Your task to perform on an android device: Open internet settings Image 0: 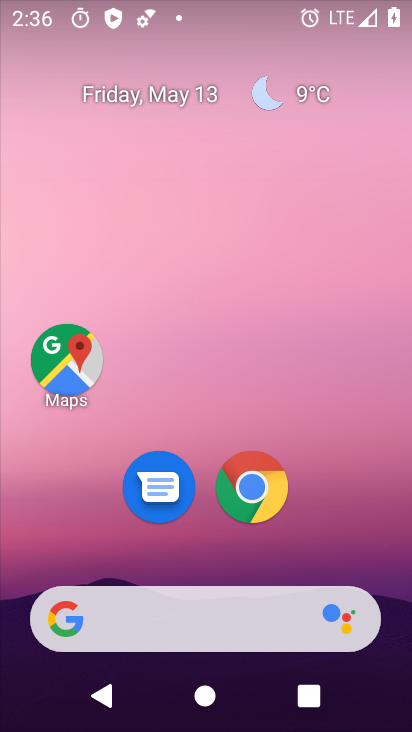
Step 0: drag from (196, 552) to (247, 163)
Your task to perform on an android device: Open internet settings Image 1: 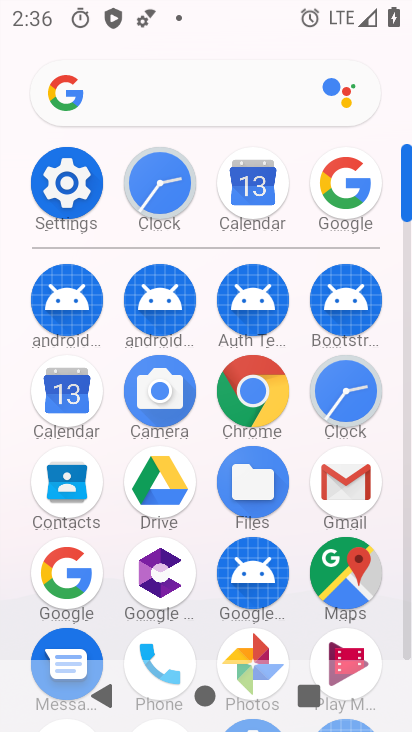
Step 1: click (67, 187)
Your task to perform on an android device: Open internet settings Image 2: 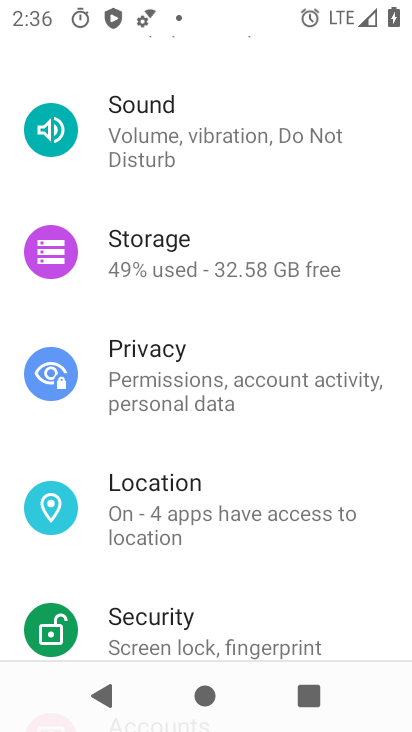
Step 2: drag from (216, 140) to (309, 559)
Your task to perform on an android device: Open internet settings Image 3: 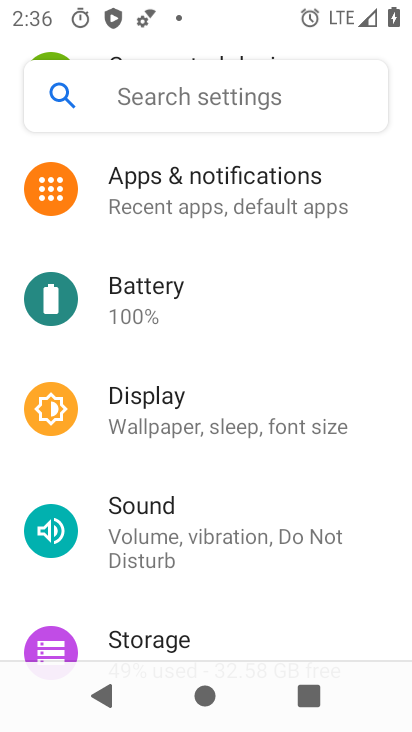
Step 3: drag from (176, 189) to (182, 513)
Your task to perform on an android device: Open internet settings Image 4: 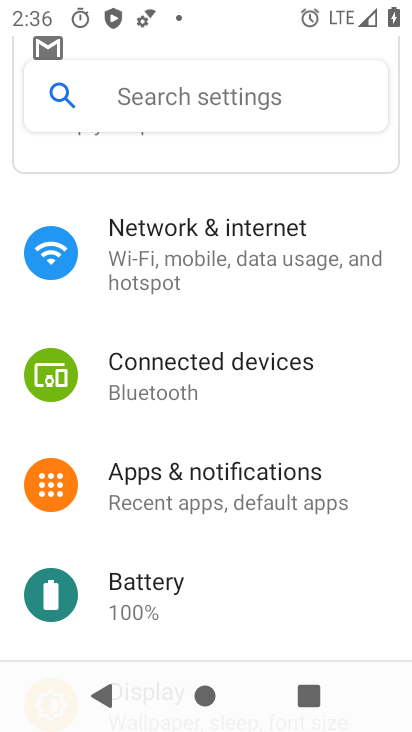
Step 4: click (196, 238)
Your task to perform on an android device: Open internet settings Image 5: 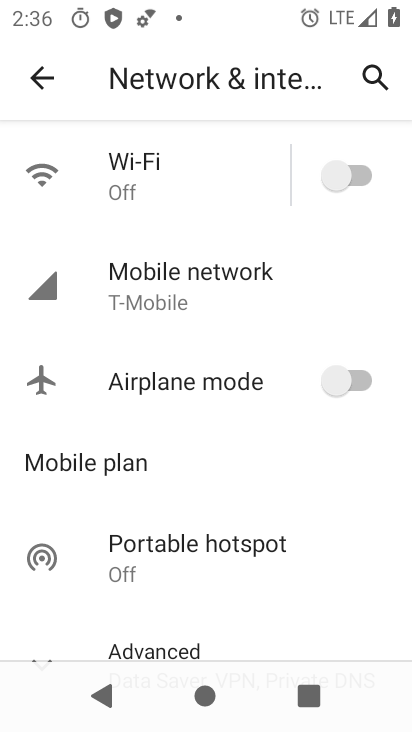
Step 5: click (174, 177)
Your task to perform on an android device: Open internet settings Image 6: 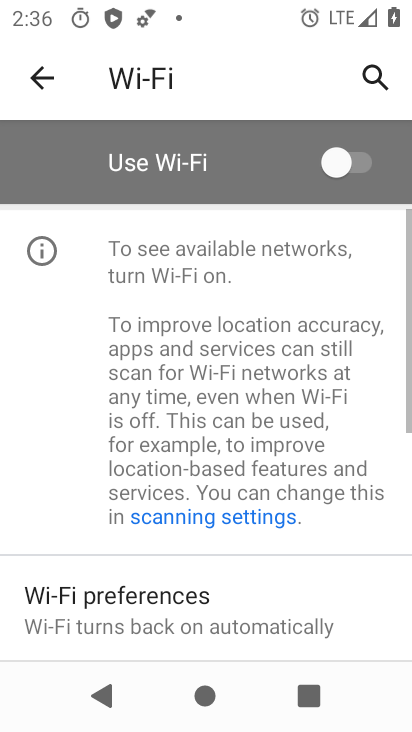
Step 6: click (356, 156)
Your task to perform on an android device: Open internet settings Image 7: 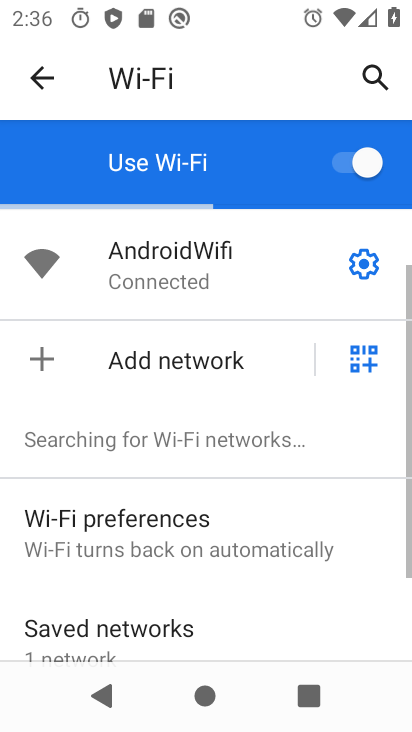
Step 7: click (371, 260)
Your task to perform on an android device: Open internet settings Image 8: 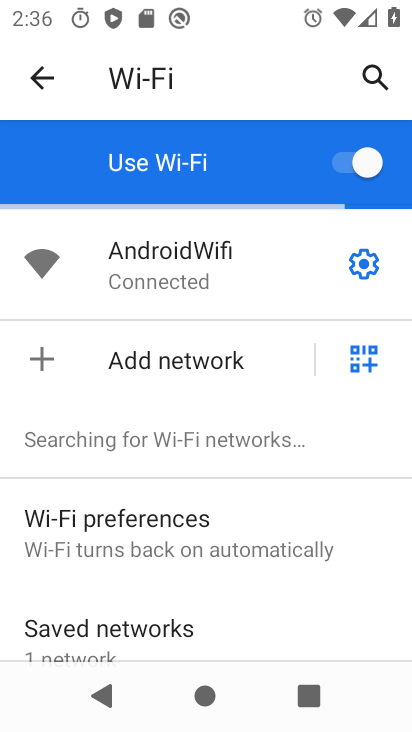
Step 8: click (358, 262)
Your task to perform on an android device: Open internet settings Image 9: 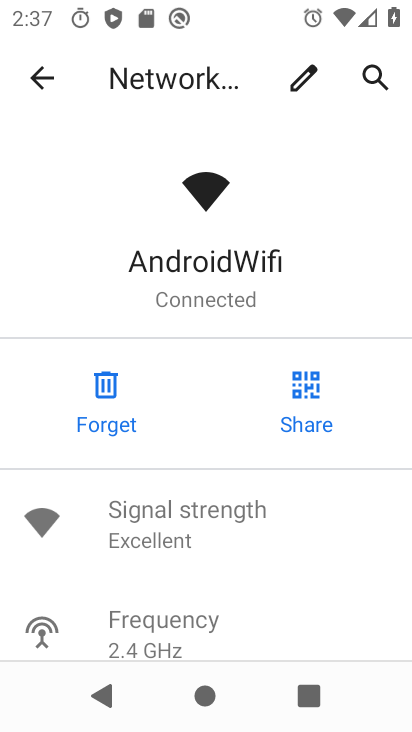
Step 9: task complete